Your task to perform on an android device: Open the calendar app, open the side menu, and click the "Day" option Image 0: 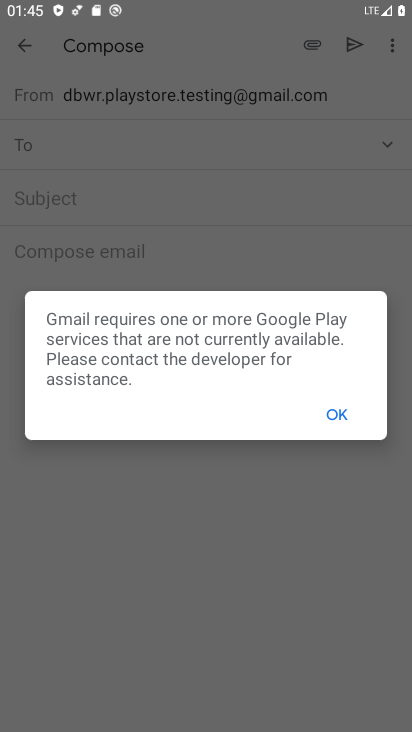
Step 0: press home button
Your task to perform on an android device: Open the calendar app, open the side menu, and click the "Day" option Image 1: 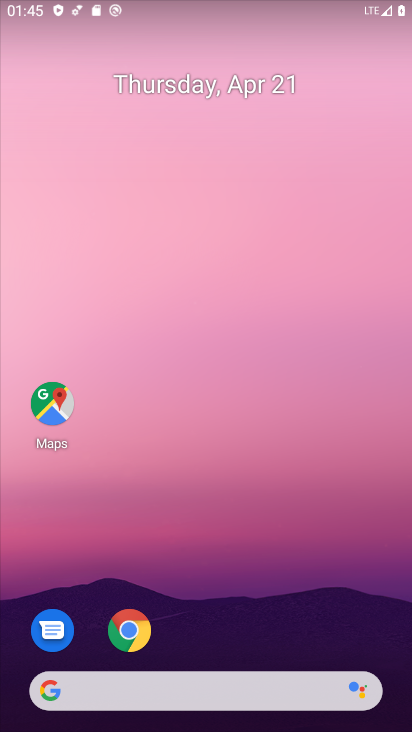
Step 1: drag from (203, 648) to (295, 170)
Your task to perform on an android device: Open the calendar app, open the side menu, and click the "Day" option Image 2: 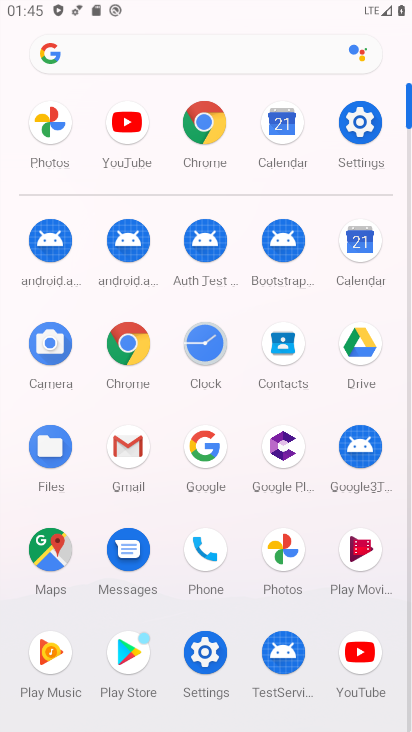
Step 2: click (345, 247)
Your task to perform on an android device: Open the calendar app, open the side menu, and click the "Day" option Image 3: 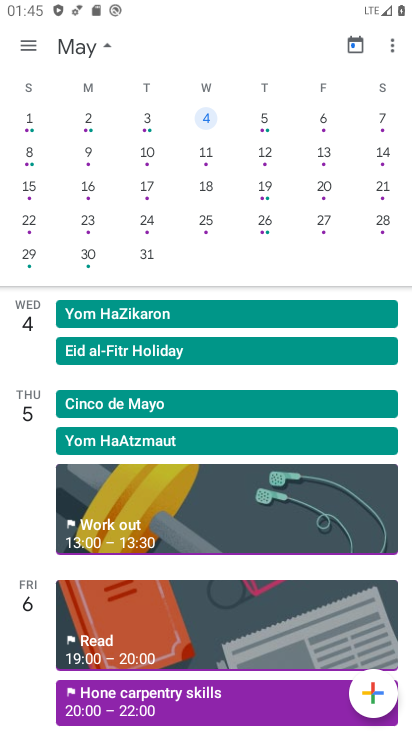
Step 3: click (34, 48)
Your task to perform on an android device: Open the calendar app, open the side menu, and click the "Day" option Image 4: 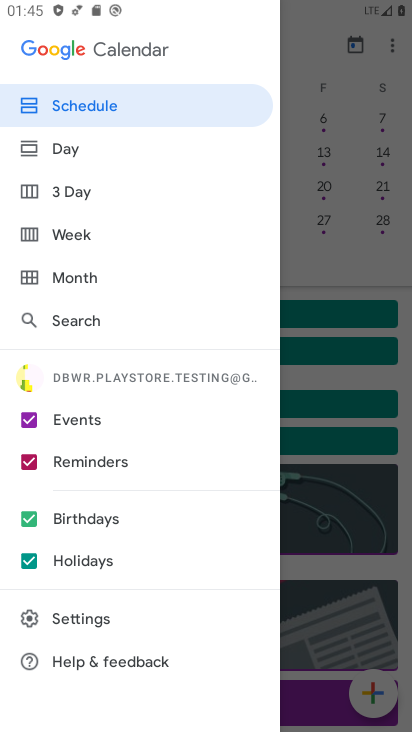
Step 4: click (100, 152)
Your task to perform on an android device: Open the calendar app, open the side menu, and click the "Day" option Image 5: 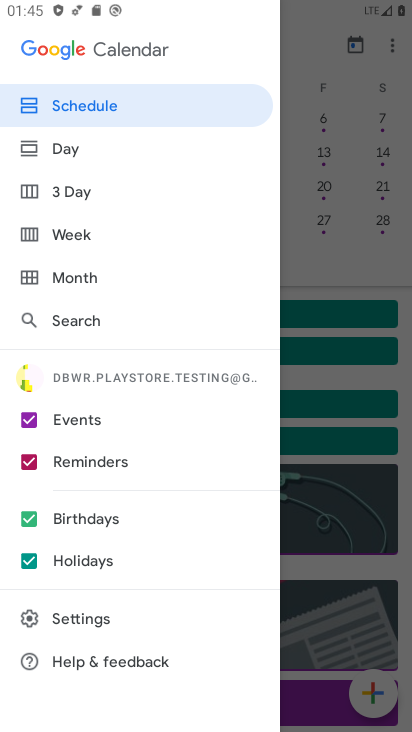
Step 5: task complete